Your task to perform on an android device: stop showing notifications on the lock screen Image 0: 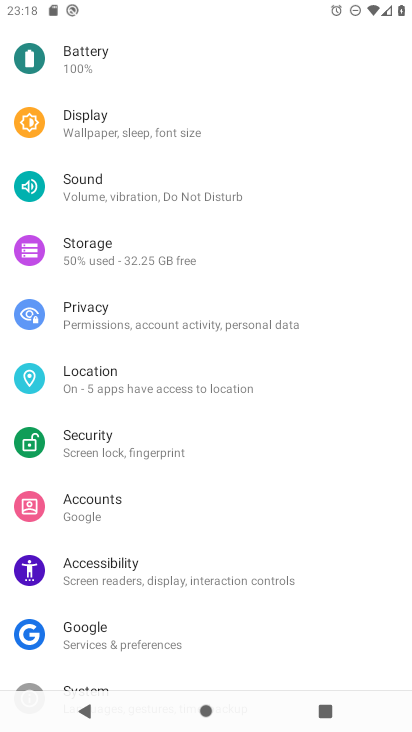
Step 0: drag from (358, 520) to (358, 383)
Your task to perform on an android device: stop showing notifications on the lock screen Image 1: 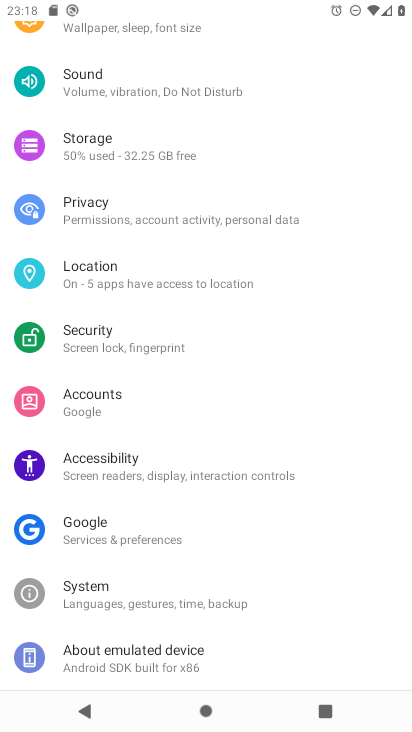
Step 1: drag from (336, 312) to (336, 370)
Your task to perform on an android device: stop showing notifications on the lock screen Image 2: 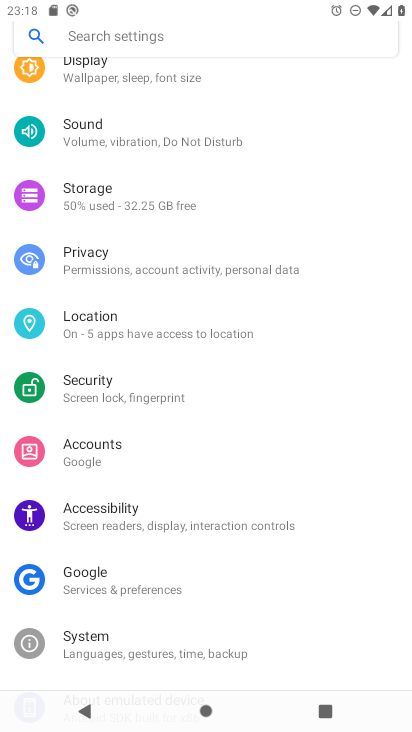
Step 2: drag from (342, 247) to (343, 318)
Your task to perform on an android device: stop showing notifications on the lock screen Image 3: 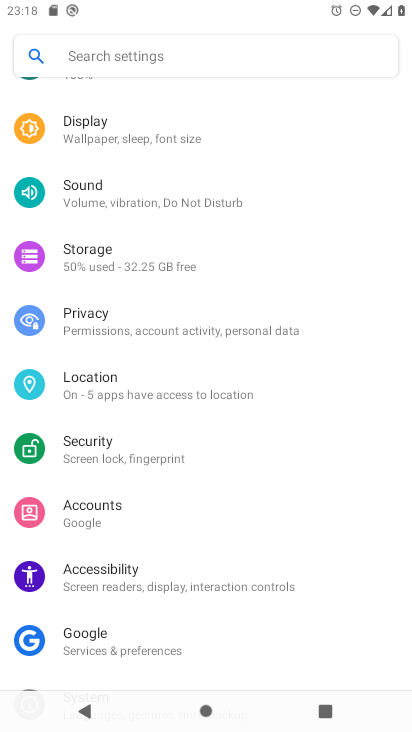
Step 3: drag from (349, 221) to (349, 319)
Your task to perform on an android device: stop showing notifications on the lock screen Image 4: 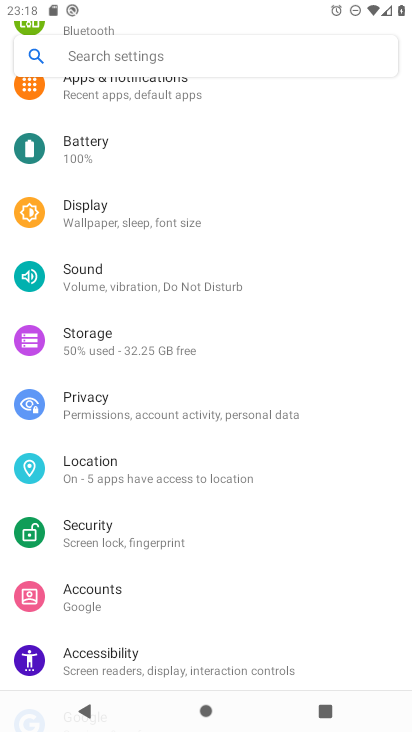
Step 4: drag from (321, 175) to (324, 276)
Your task to perform on an android device: stop showing notifications on the lock screen Image 5: 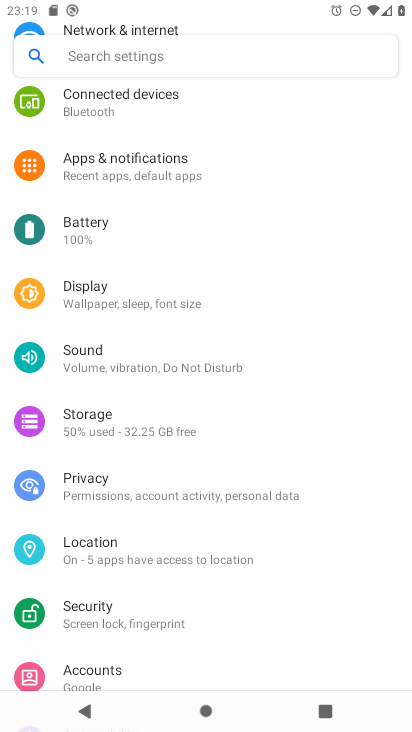
Step 5: click (206, 184)
Your task to perform on an android device: stop showing notifications on the lock screen Image 6: 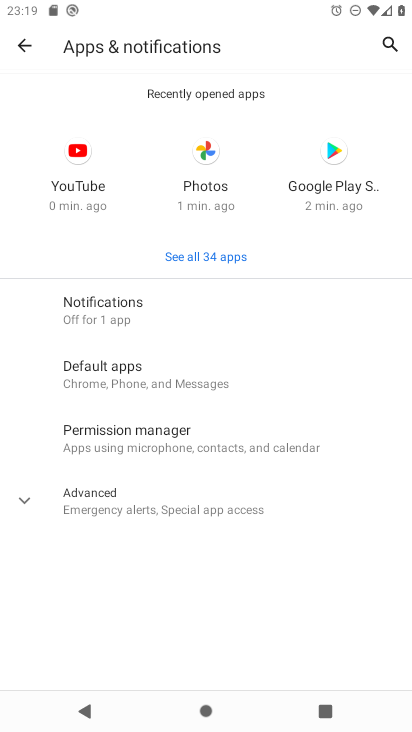
Step 6: click (222, 327)
Your task to perform on an android device: stop showing notifications on the lock screen Image 7: 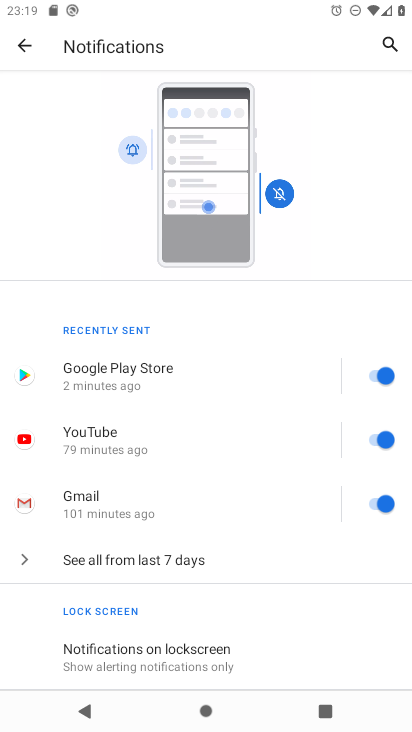
Step 7: drag from (262, 470) to (268, 388)
Your task to perform on an android device: stop showing notifications on the lock screen Image 8: 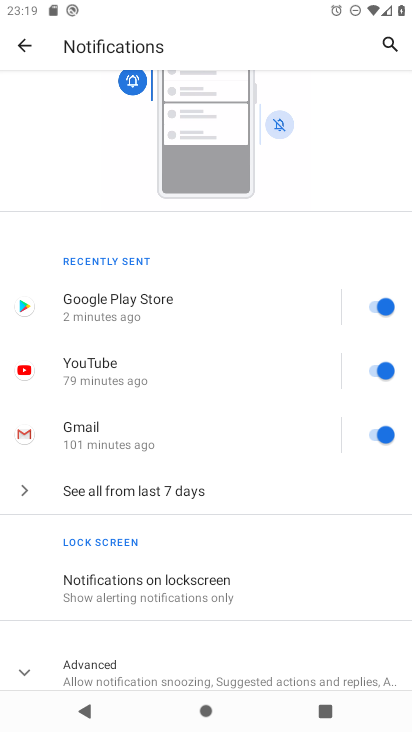
Step 8: click (255, 598)
Your task to perform on an android device: stop showing notifications on the lock screen Image 9: 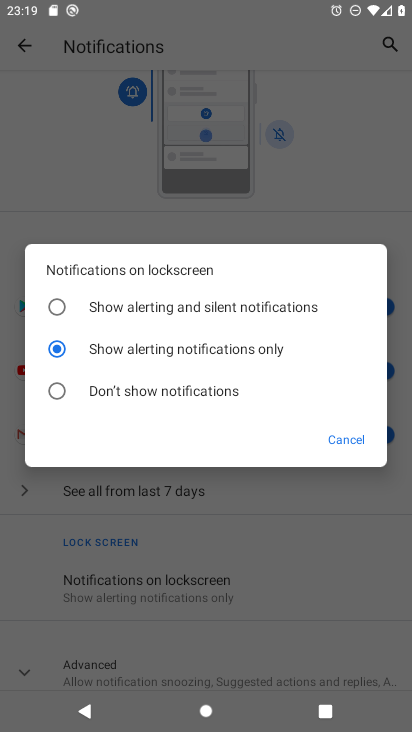
Step 9: click (213, 398)
Your task to perform on an android device: stop showing notifications on the lock screen Image 10: 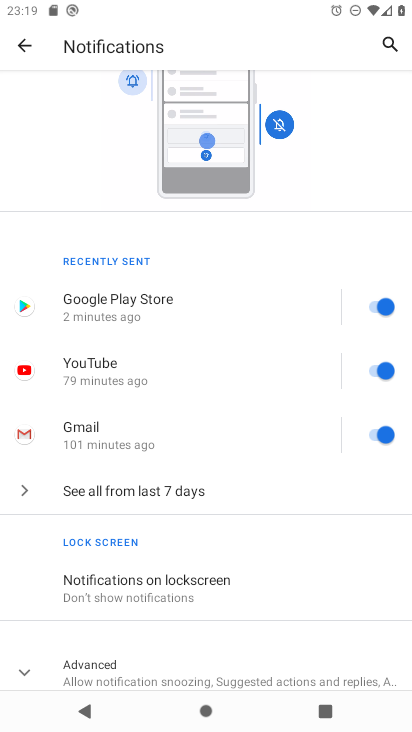
Step 10: task complete